Your task to perform on an android device: check storage Image 0: 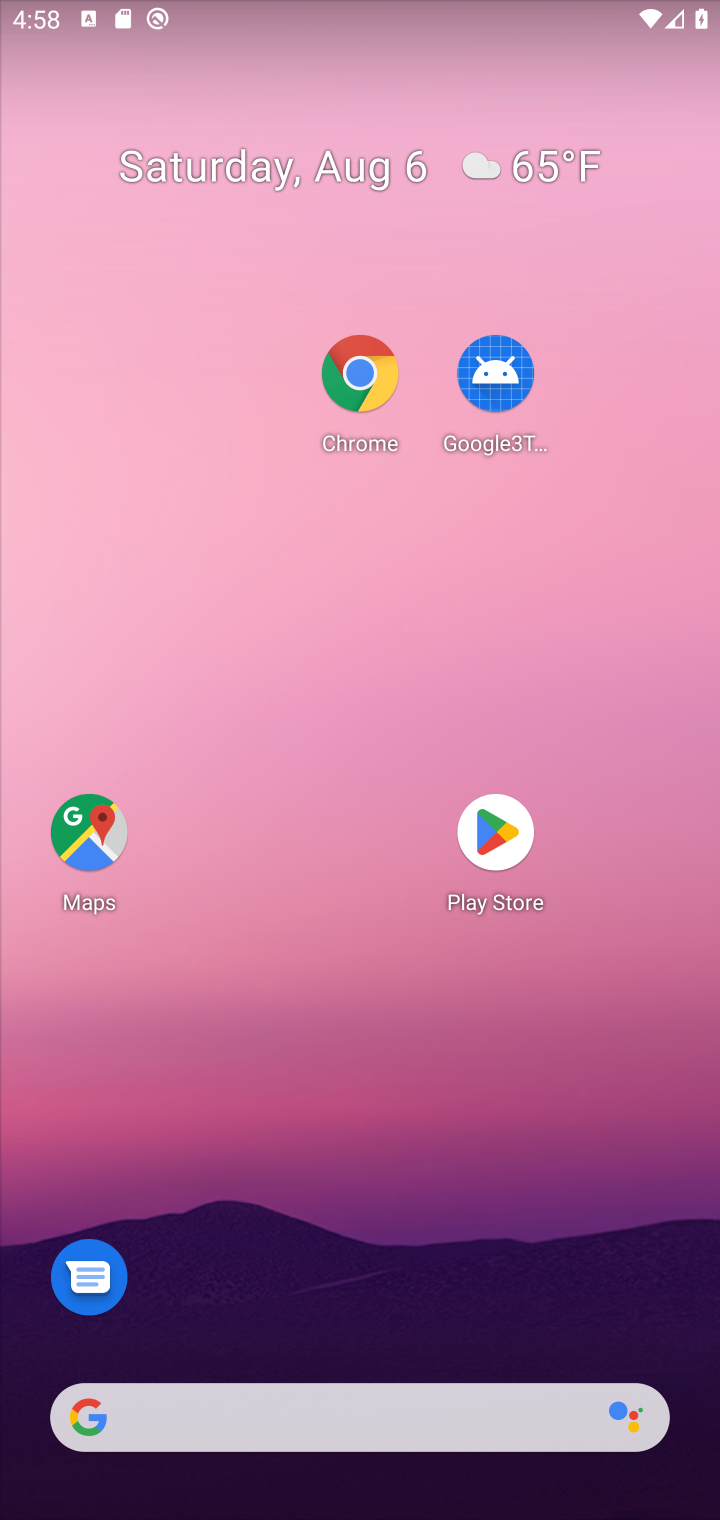
Step 0: drag from (494, 1405) to (519, 14)
Your task to perform on an android device: check storage Image 1: 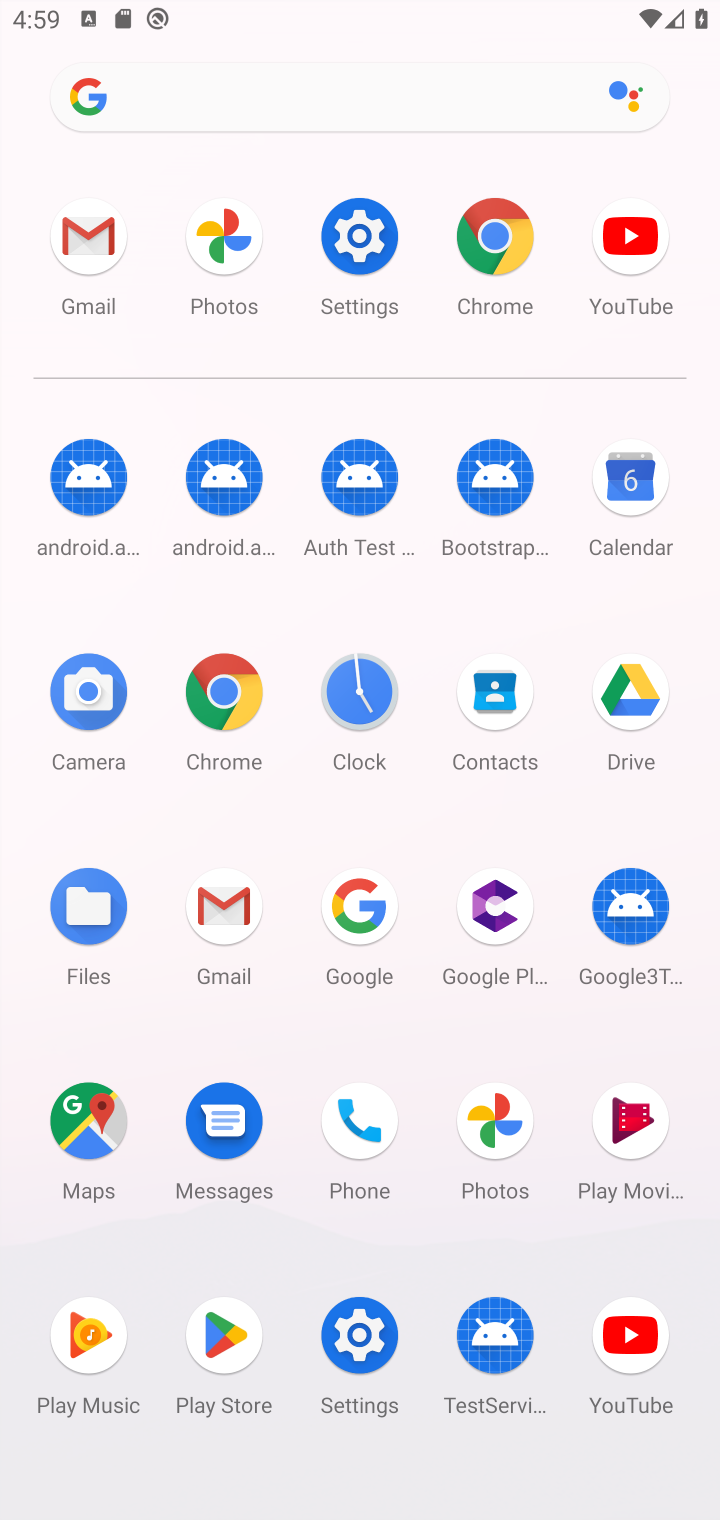
Step 1: click (371, 240)
Your task to perform on an android device: check storage Image 2: 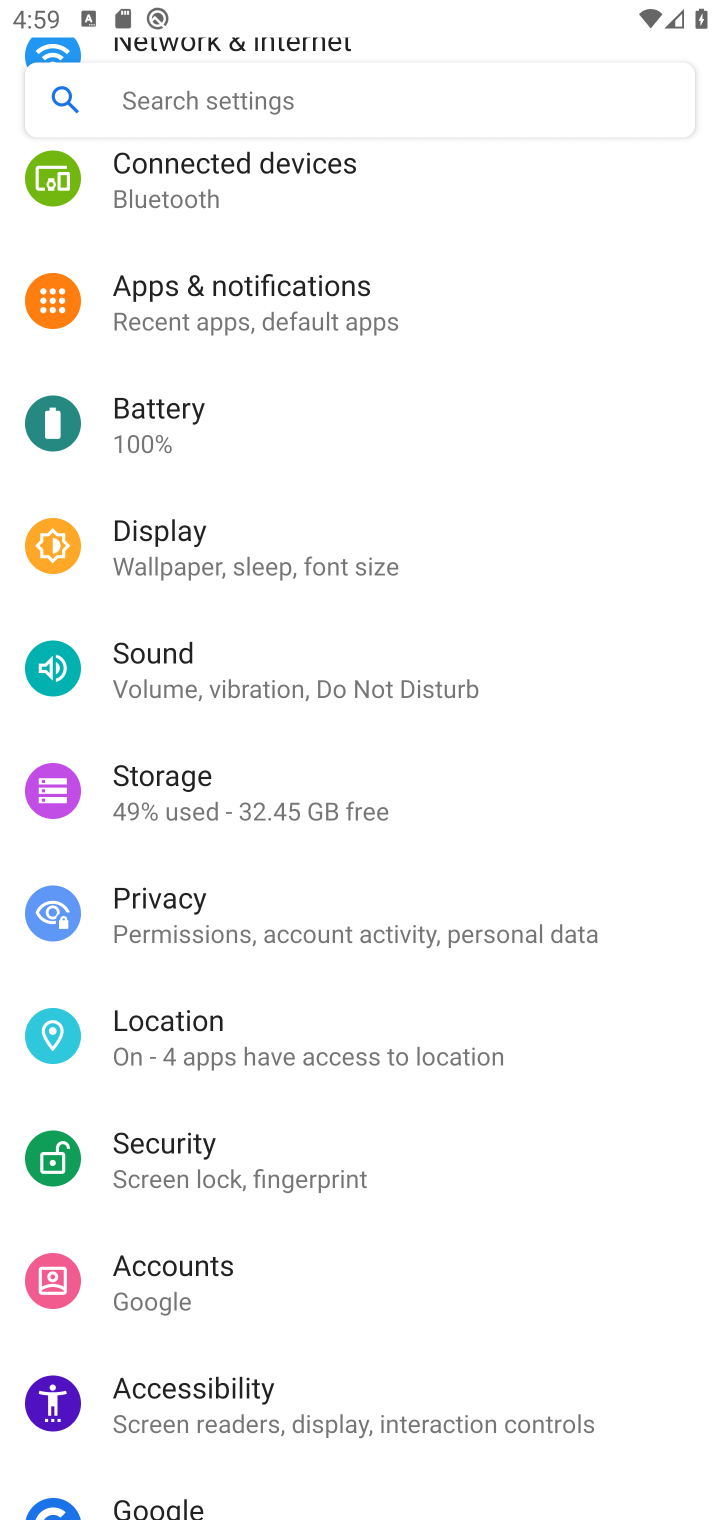
Step 2: click (179, 803)
Your task to perform on an android device: check storage Image 3: 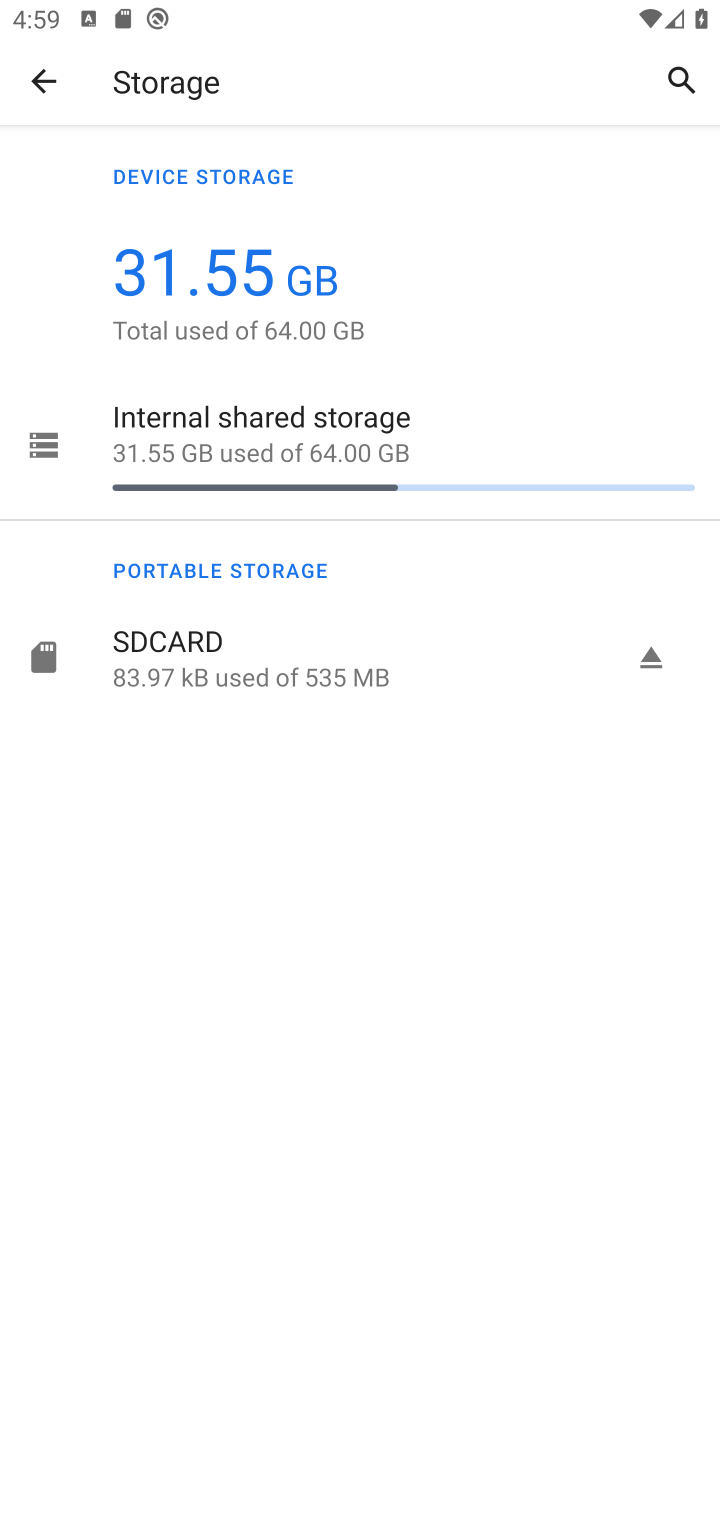
Step 3: task complete